Your task to perform on an android device: turn on location history Image 0: 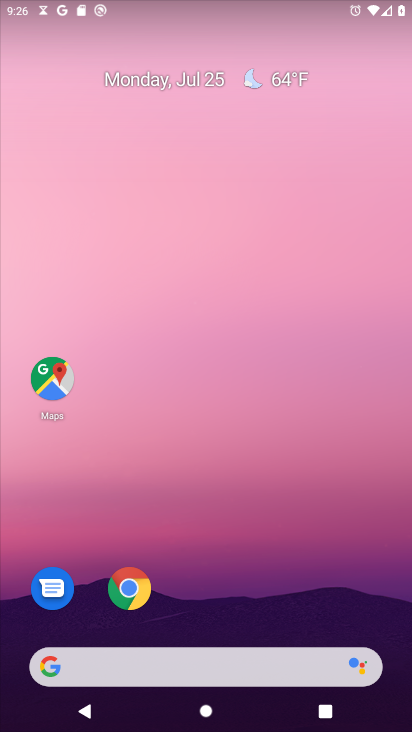
Step 0: drag from (207, 659) to (195, 27)
Your task to perform on an android device: turn on location history Image 1: 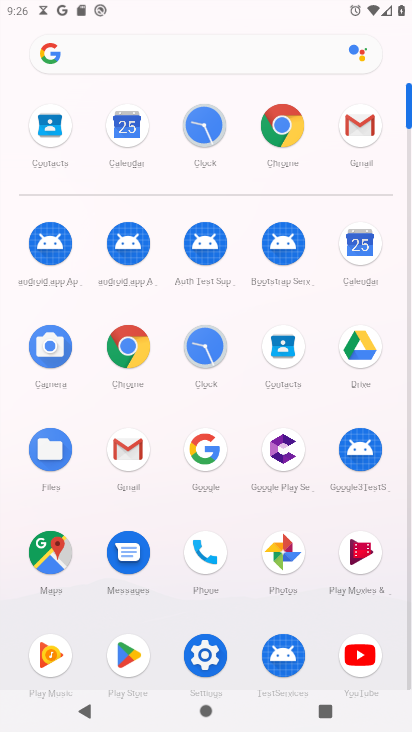
Step 1: click (203, 638)
Your task to perform on an android device: turn on location history Image 2: 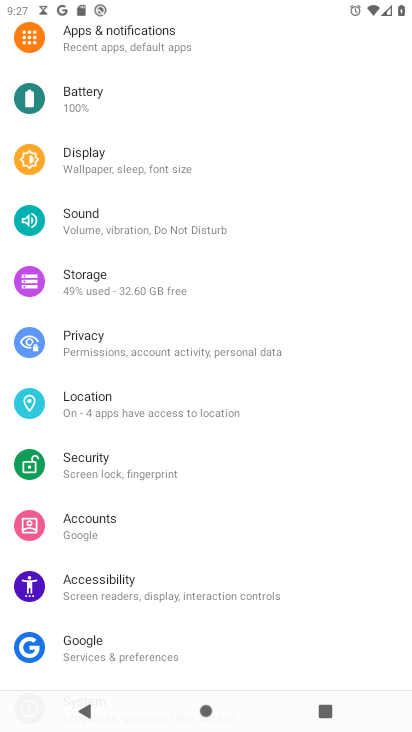
Step 2: click (124, 406)
Your task to perform on an android device: turn on location history Image 3: 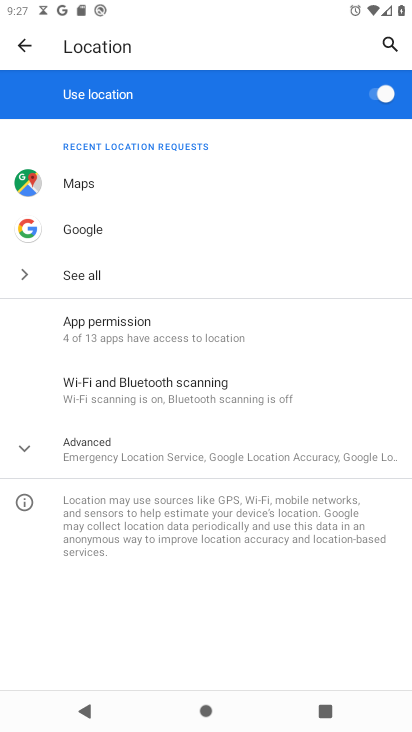
Step 3: click (118, 452)
Your task to perform on an android device: turn on location history Image 4: 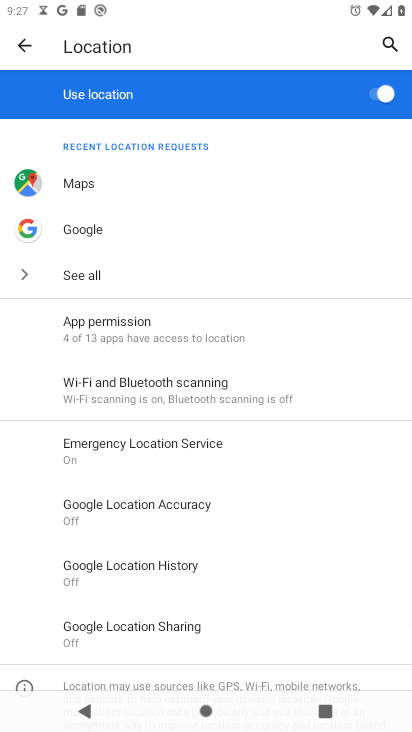
Step 4: click (202, 555)
Your task to perform on an android device: turn on location history Image 5: 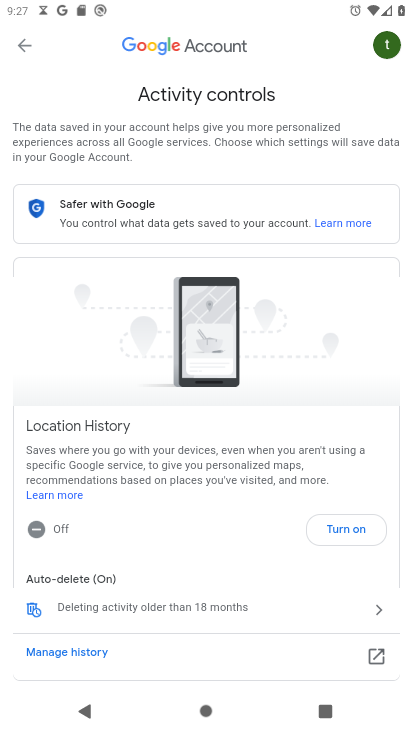
Step 5: click (352, 531)
Your task to perform on an android device: turn on location history Image 6: 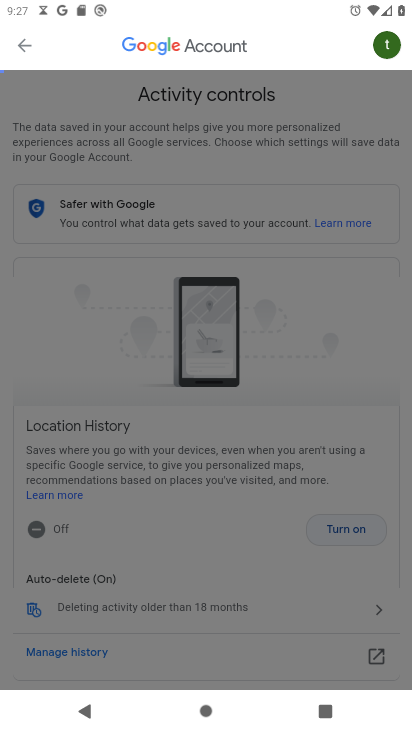
Step 6: task complete